Your task to perform on an android device: Open sound settings Image 0: 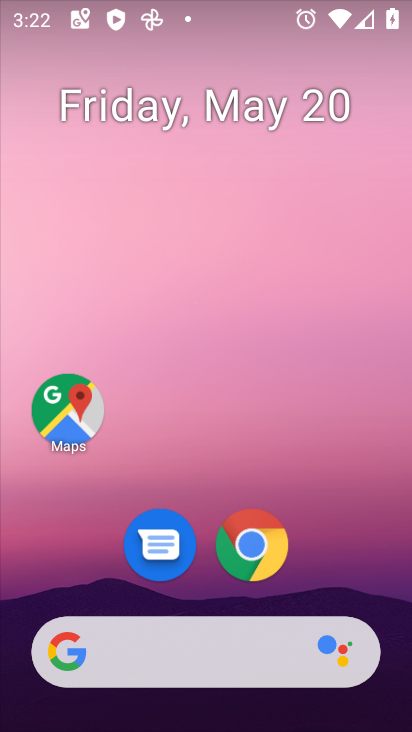
Step 0: drag from (344, 563) to (266, 31)
Your task to perform on an android device: Open sound settings Image 1: 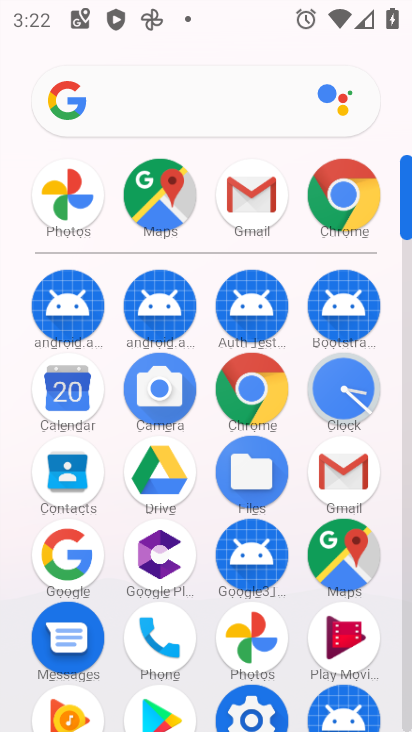
Step 1: click (245, 715)
Your task to perform on an android device: Open sound settings Image 2: 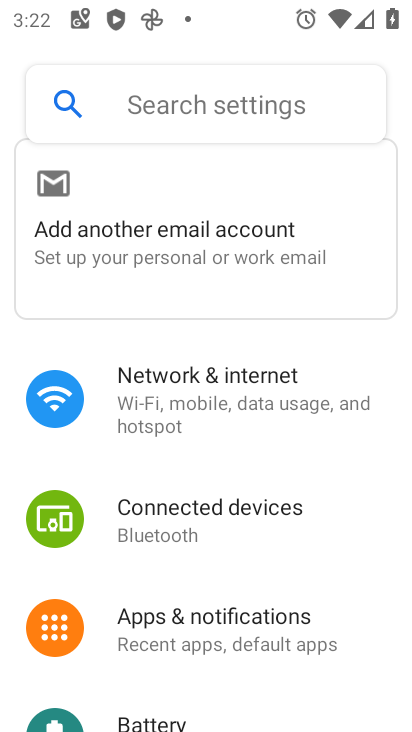
Step 2: drag from (286, 618) to (272, 204)
Your task to perform on an android device: Open sound settings Image 3: 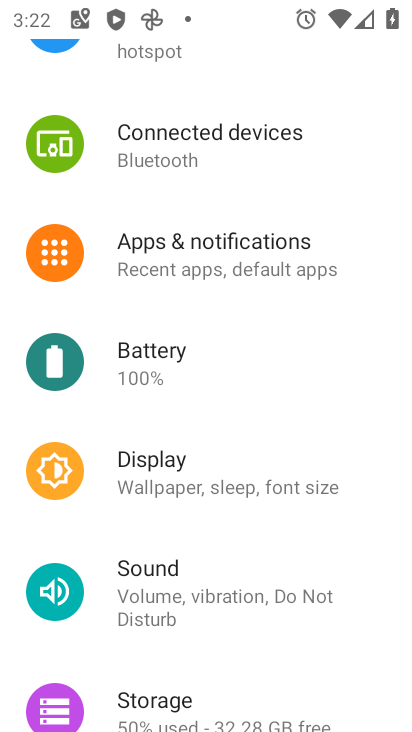
Step 3: click (259, 606)
Your task to perform on an android device: Open sound settings Image 4: 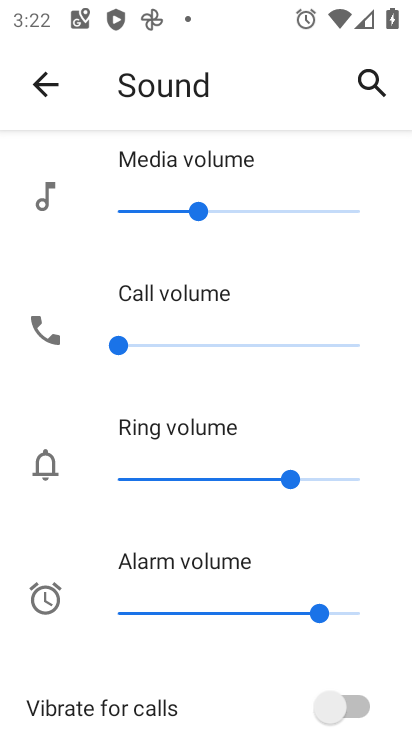
Step 4: task complete